Your task to perform on an android device: Open Google Chrome and open the bookmarks view Image 0: 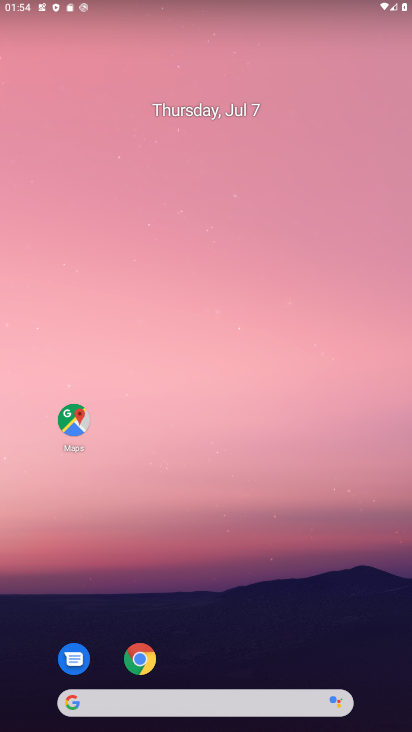
Step 0: drag from (238, 648) to (285, 190)
Your task to perform on an android device: Open Google Chrome and open the bookmarks view Image 1: 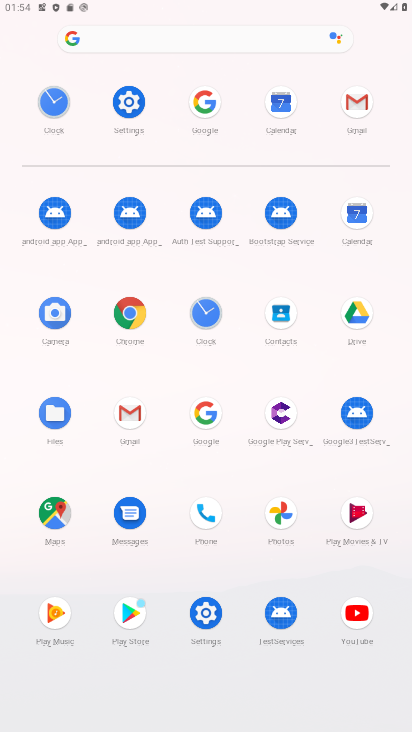
Step 1: click (129, 310)
Your task to perform on an android device: Open Google Chrome and open the bookmarks view Image 2: 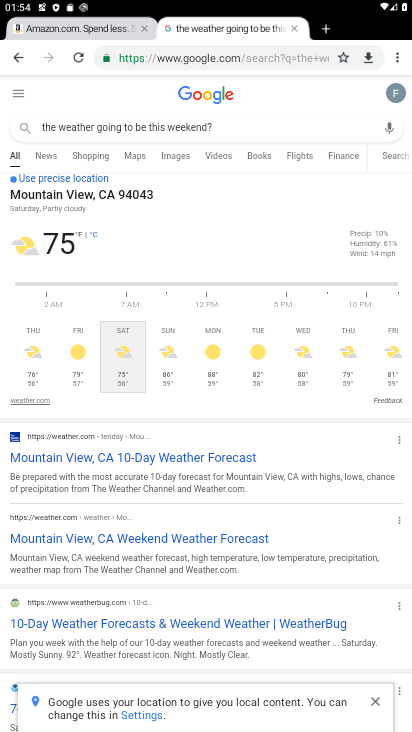
Step 2: click (389, 55)
Your task to perform on an android device: Open Google Chrome and open the bookmarks view Image 3: 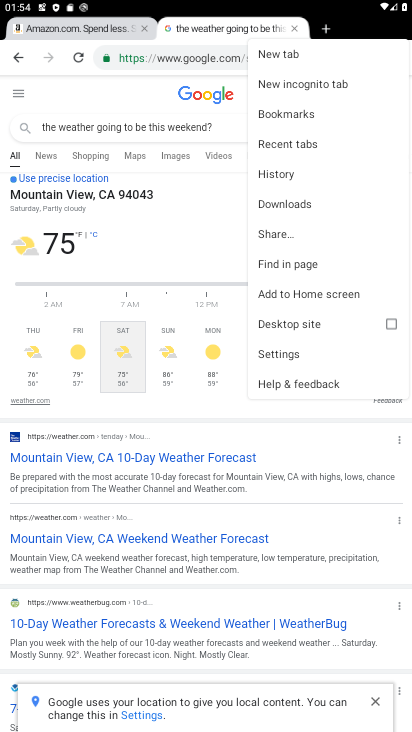
Step 3: click (285, 113)
Your task to perform on an android device: Open Google Chrome and open the bookmarks view Image 4: 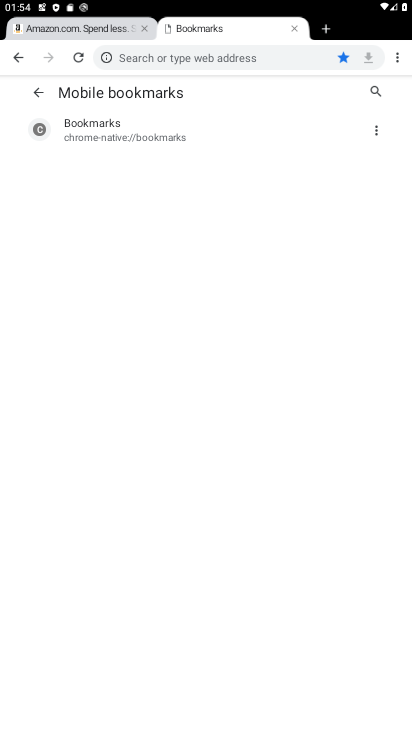
Step 4: click (115, 136)
Your task to perform on an android device: Open Google Chrome and open the bookmarks view Image 5: 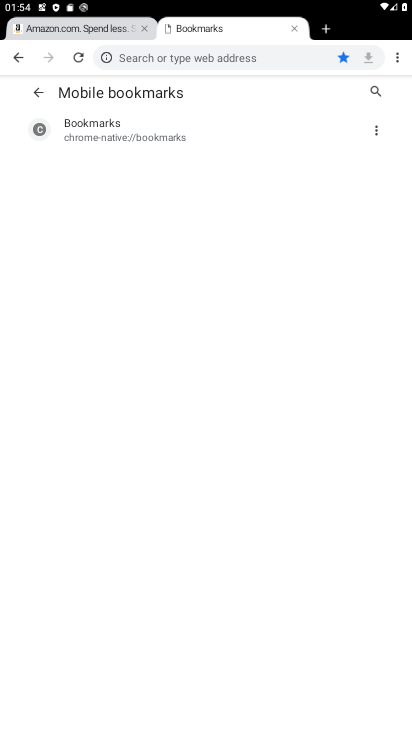
Step 5: click (99, 121)
Your task to perform on an android device: Open Google Chrome and open the bookmarks view Image 6: 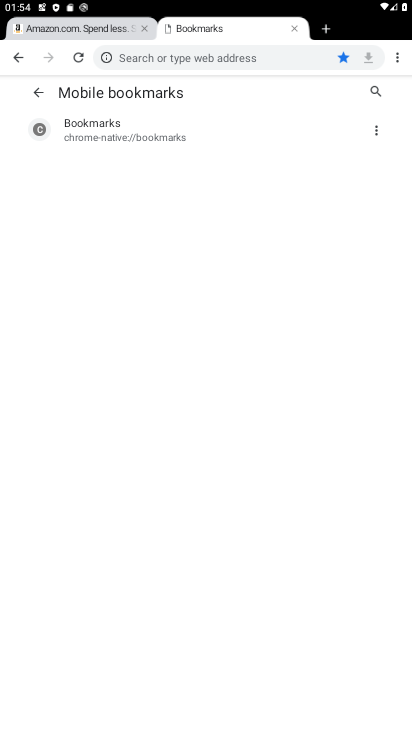
Step 6: click (52, 131)
Your task to perform on an android device: Open Google Chrome and open the bookmarks view Image 7: 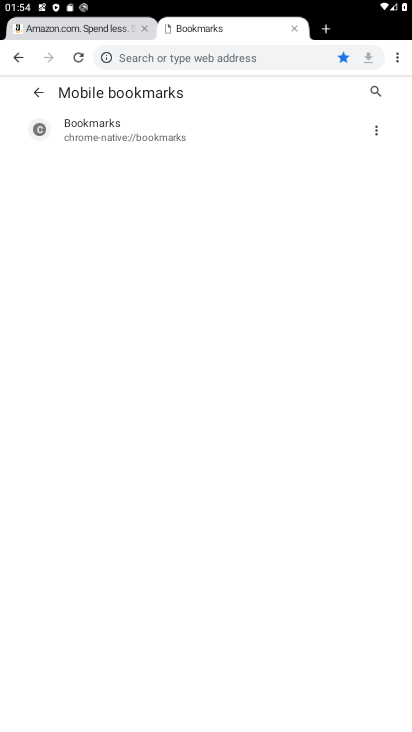
Step 7: click (101, 130)
Your task to perform on an android device: Open Google Chrome and open the bookmarks view Image 8: 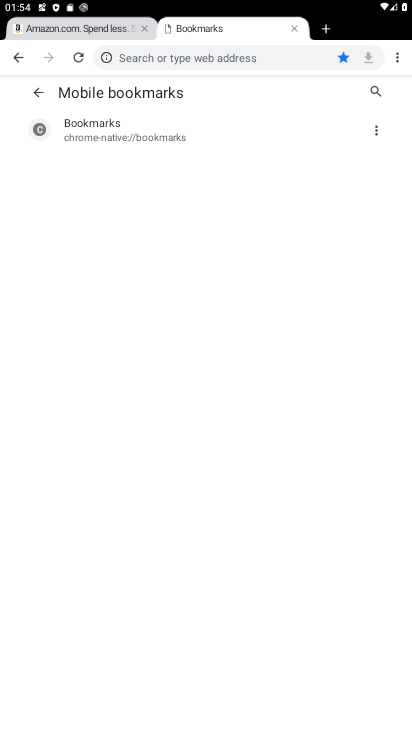
Step 8: click (104, 129)
Your task to perform on an android device: Open Google Chrome and open the bookmarks view Image 9: 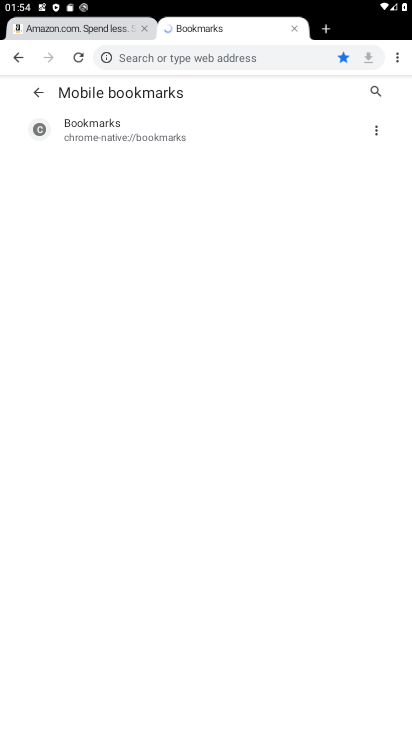
Step 9: click (105, 129)
Your task to perform on an android device: Open Google Chrome and open the bookmarks view Image 10: 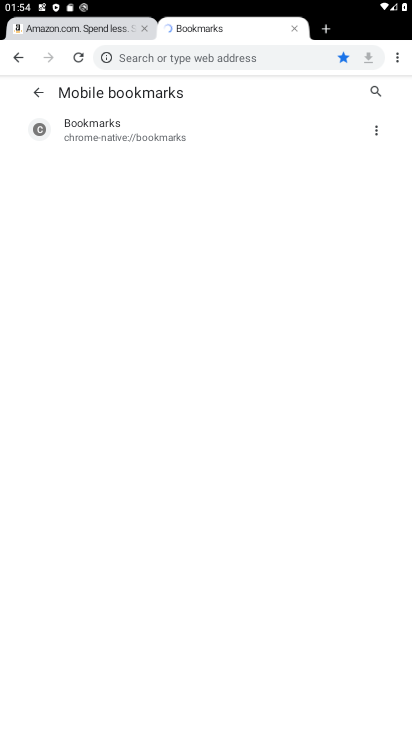
Step 10: task complete